Your task to perform on an android device: check the backup settings in the google photos Image 0: 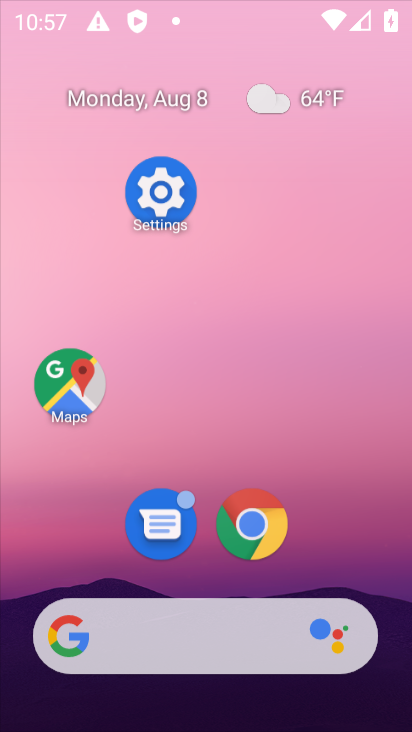
Step 0: press back button
Your task to perform on an android device: check the backup settings in the google photos Image 1: 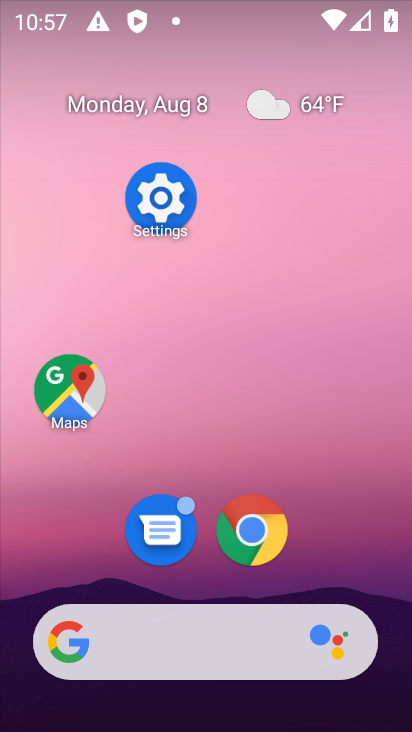
Step 1: drag from (233, 580) to (222, 149)
Your task to perform on an android device: check the backup settings in the google photos Image 2: 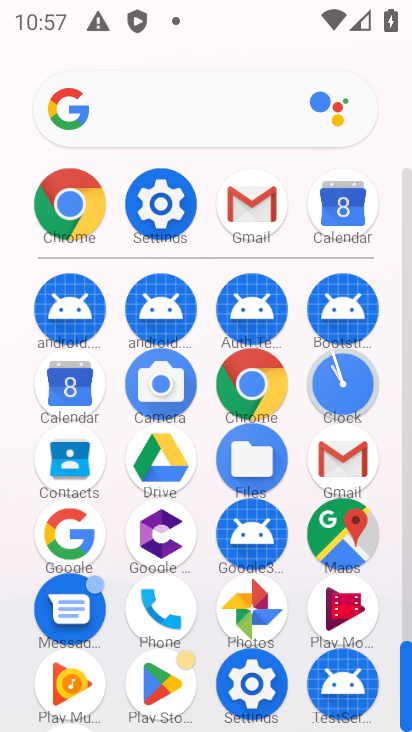
Step 2: click (236, 604)
Your task to perform on an android device: check the backup settings in the google photos Image 3: 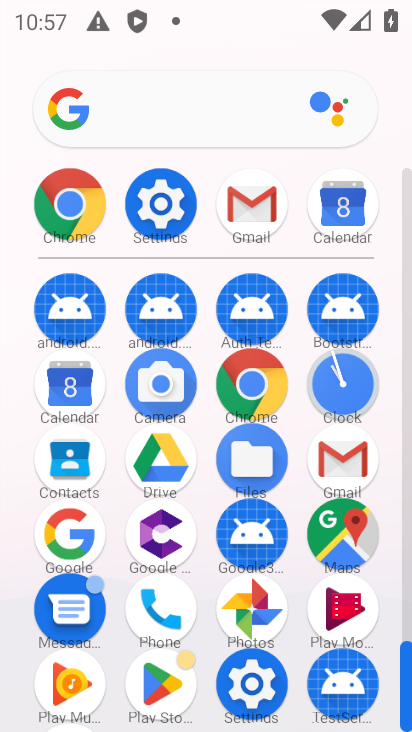
Step 3: click (236, 604)
Your task to perform on an android device: check the backup settings in the google photos Image 4: 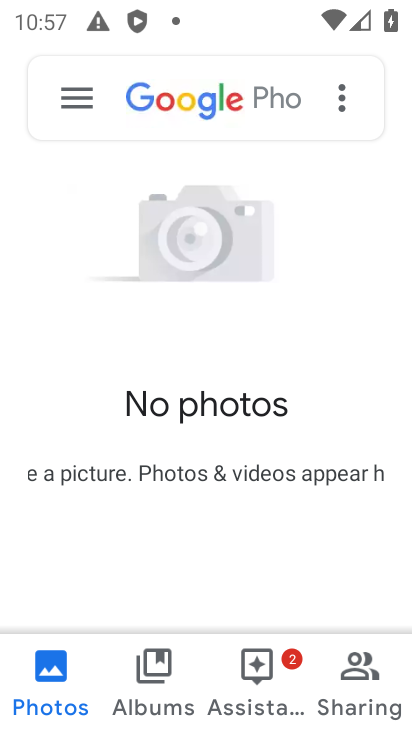
Step 4: click (249, 600)
Your task to perform on an android device: check the backup settings in the google photos Image 5: 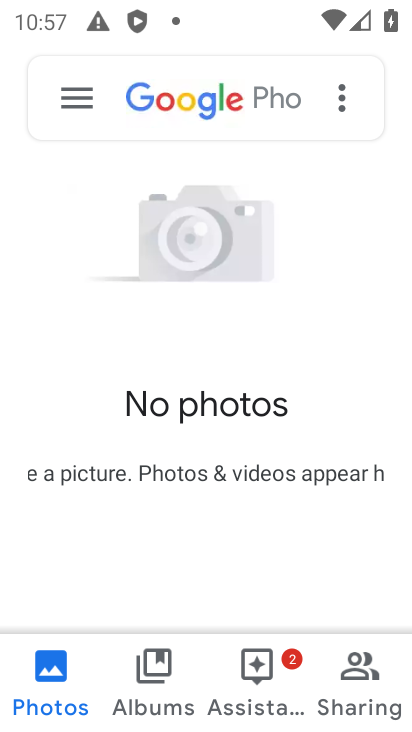
Step 5: click (249, 600)
Your task to perform on an android device: check the backup settings in the google photos Image 6: 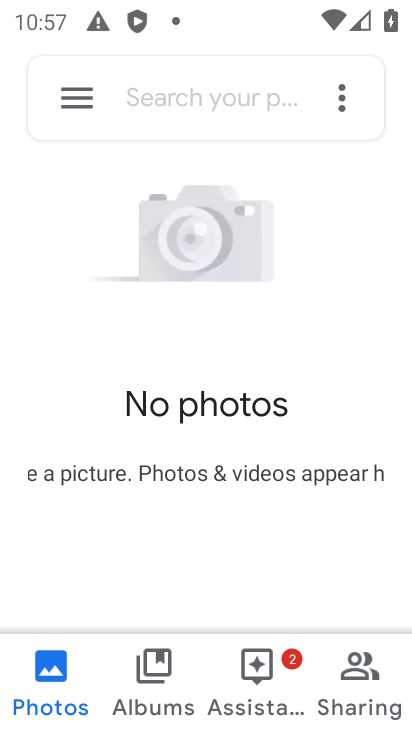
Step 6: click (66, 97)
Your task to perform on an android device: check the backup settings in the google photos Image 7: 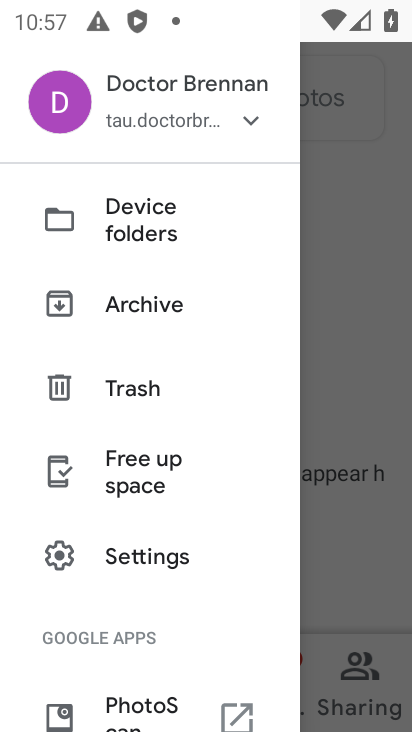
Step 7: drag from (152, 587) to (137, 334)
Your task to perform on an android device: check the backup settings in the google photos Image 8: 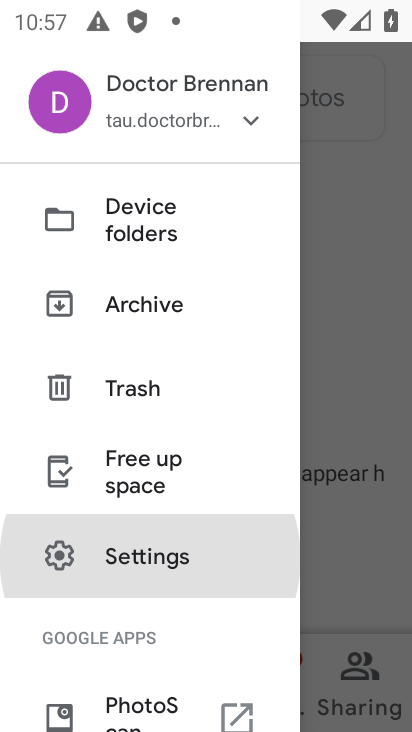
Step 8: drag from (196, 541) to (196, 319)
Your task to perform on an android device: check the backup settings in the google photos Image 9: 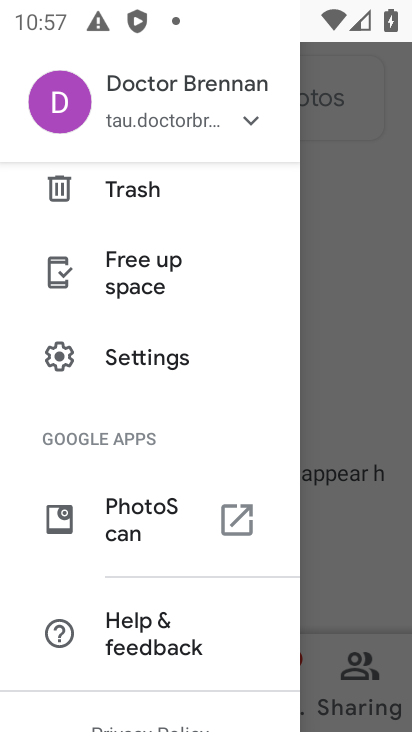
Step 9: click (149, 360)
Your task to perform on an android device: check the backup settings in the google photos Image 10: 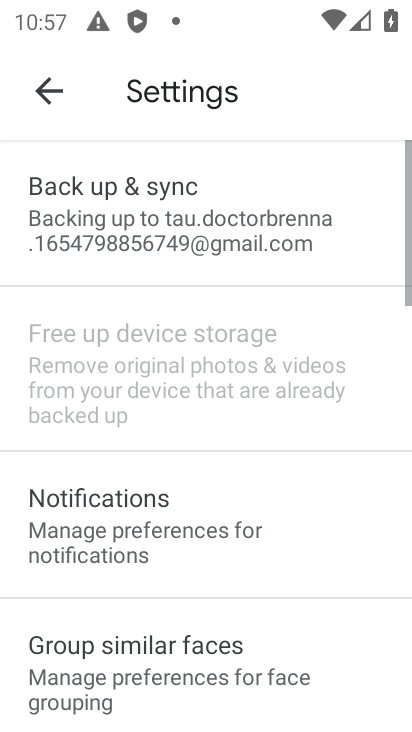
Step 10: click (117, 211)
Your task to perform on an android device: check the backup settings in the google photos Image 11: 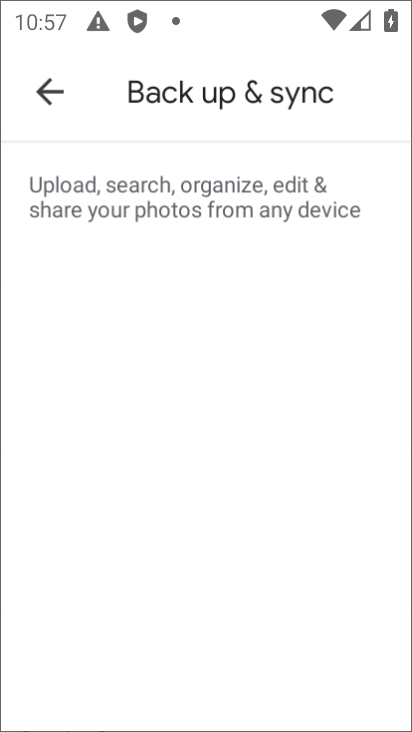
Step 11: click (140, 215)
Your task to perform on an android device: check the backup settings in the google photos Image 12: 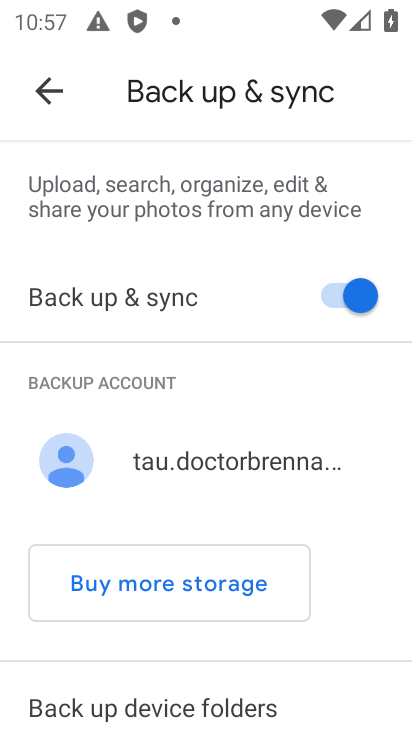
Step 12: drag from (159, 576) to (62, 131)
Your task to perform on an android device: check the backup settings in the google photos Image 13: 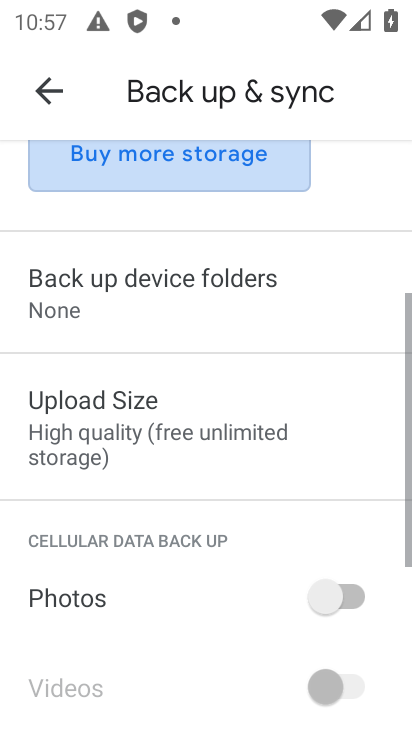
Step 13: drag from (199, 489) to (206, 212)
Your task to perform on an android device: check the backup settings in the google photos Image 14: 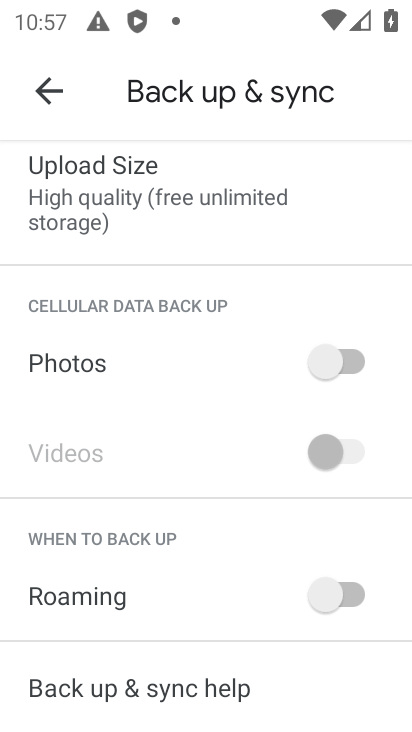
Step 14: click (106, 199)
Your task to perform on an android device: check the backup settings in the google photos Image 15: 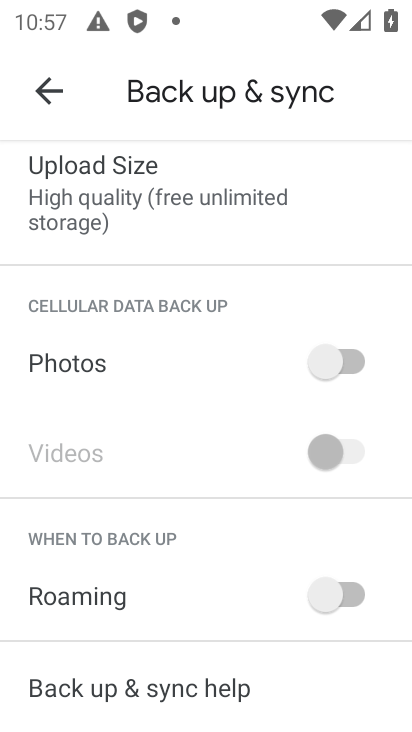
Step 15: click (105, 198)
Your task to perform on an android device: check the backup settings in the google photos Image 16: 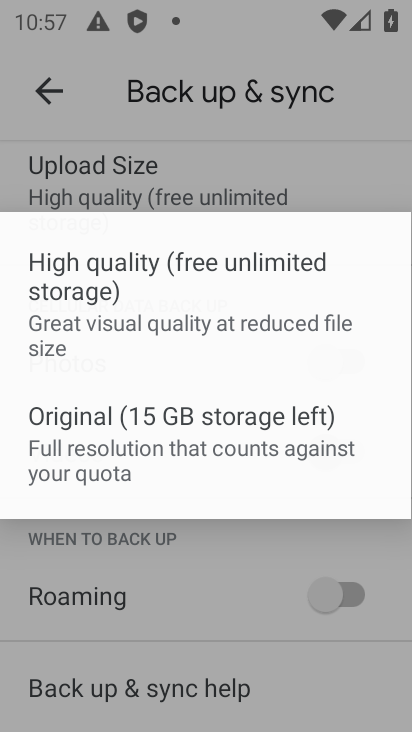
Step 16: click (106, 198)
Your task to perform on an android device: check the backup settings in the google photos Image 17: 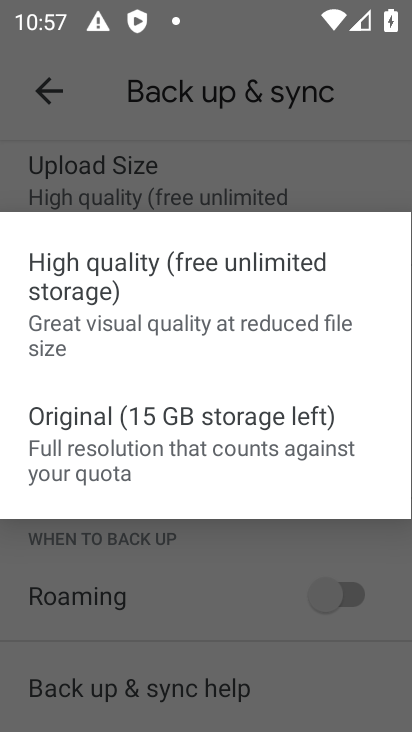
Step 17: click (87, 425)
Your task to perform on an android device: check the backup settings in the google photos Image 18: 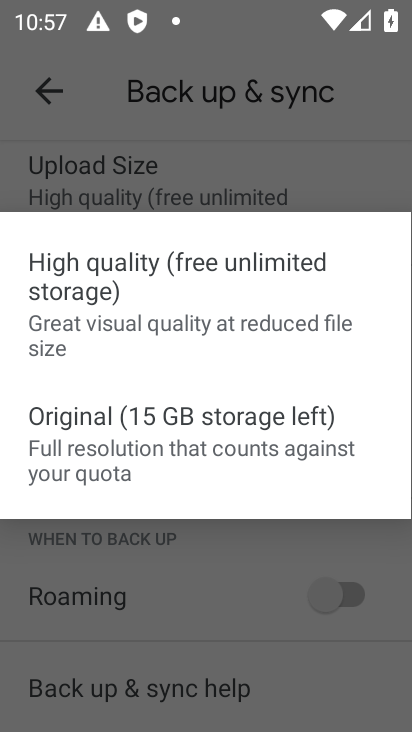
Step 18: click (87, 428)
Your task to perform on an android device: check the backup settings in the google photos Image 19: 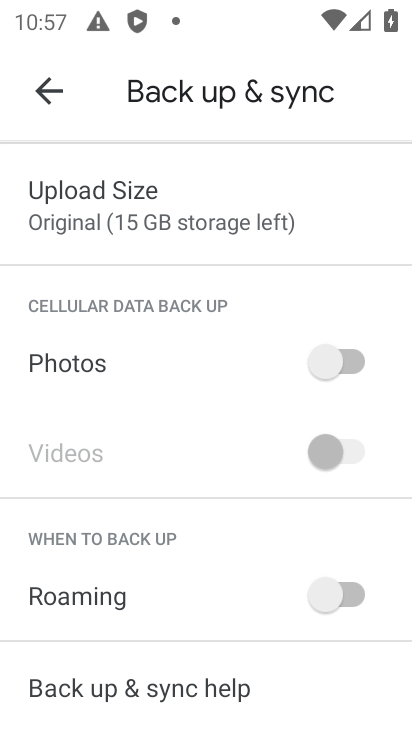
Step 19: task complete